Your task to perform on an android device: Go to privacy settings Image 0: 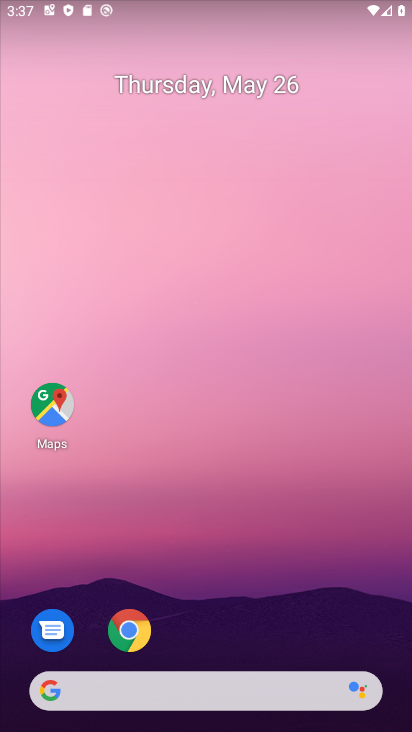
Step 0: drag from (292, 592) to (325, 48)
Your task to perform on an android device: Go to privacy settings Image 1: 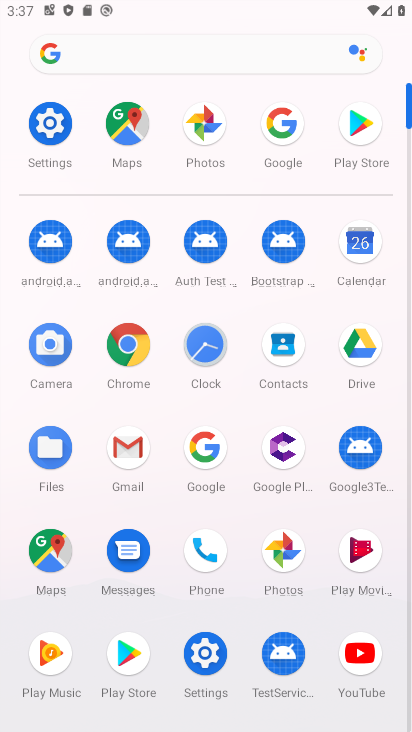
Step 1: click (53, 123)
Your task to perform on an android device: Go to privacy settings Image 2: 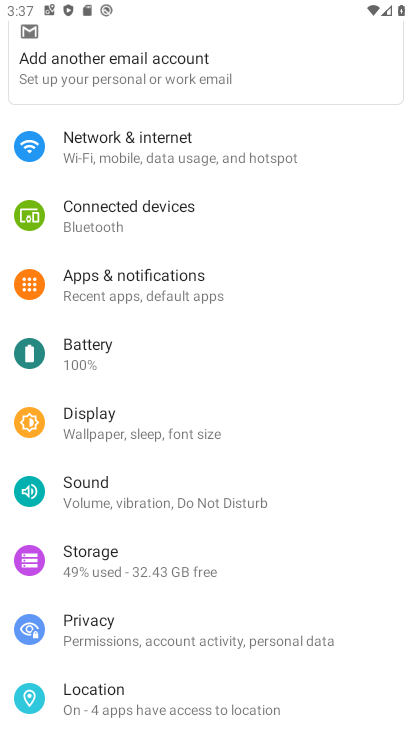
Step 2: click (106, 624)
Your task to perform on an android device: Go to privacy settings Image 3: 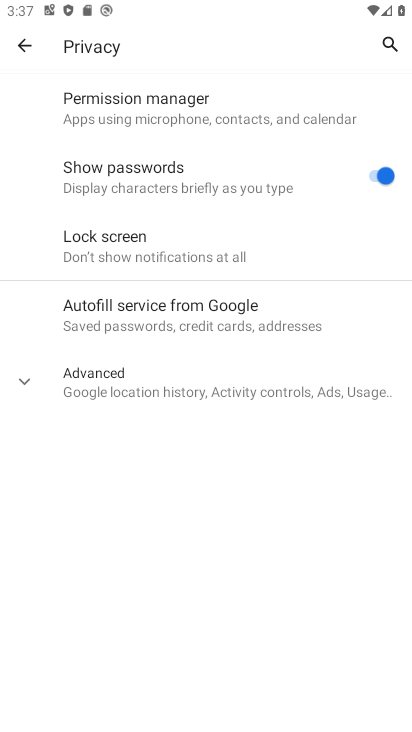
Step 3: task complete